Your task to perform on an android device: Show me productivity apps on the Play Store Image 0: 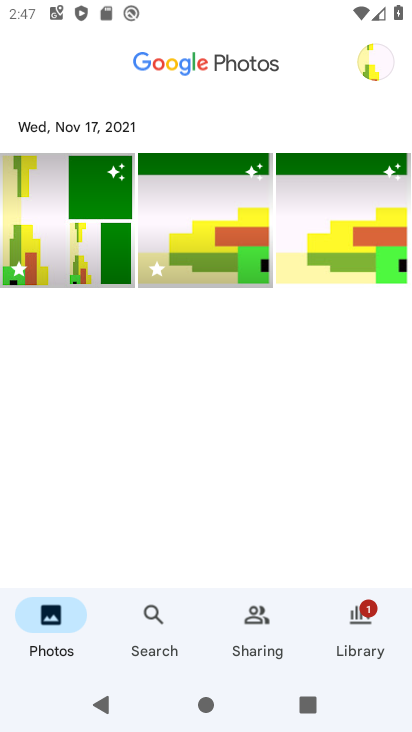
Step 0: press home button
Your task to perform on an android device: Show me productivity apps on the Play Store Image 1: 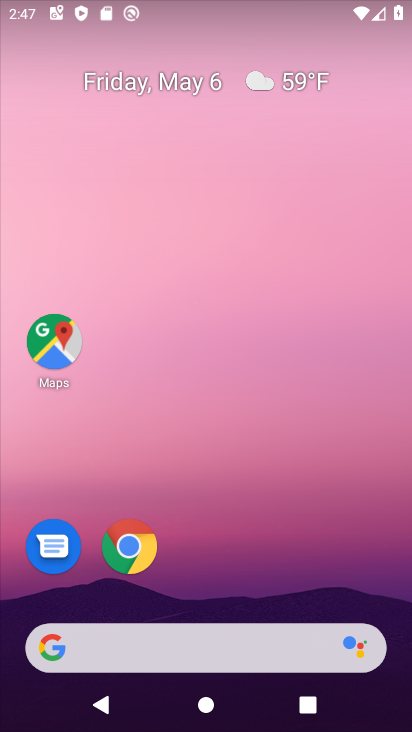
Step 1: drag from (243, 598) to (211, 229)
Your task to perform on an android device: Show me productivity apps on the Play Store Image 2: 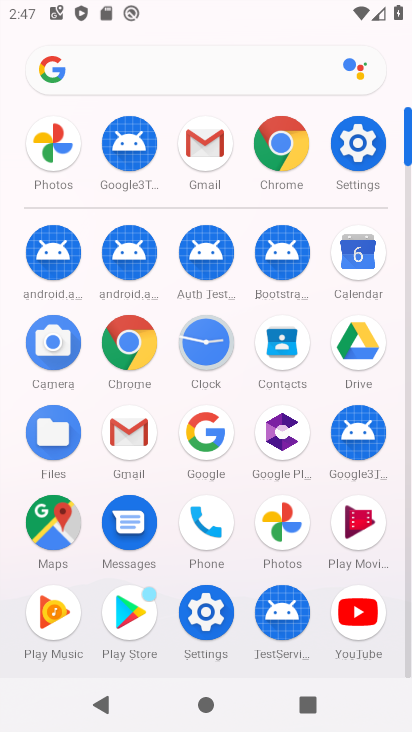
Step 2: click (124, 617)
Your task to perform on an android device: Show me productivity apps on the Play Store Image 3: 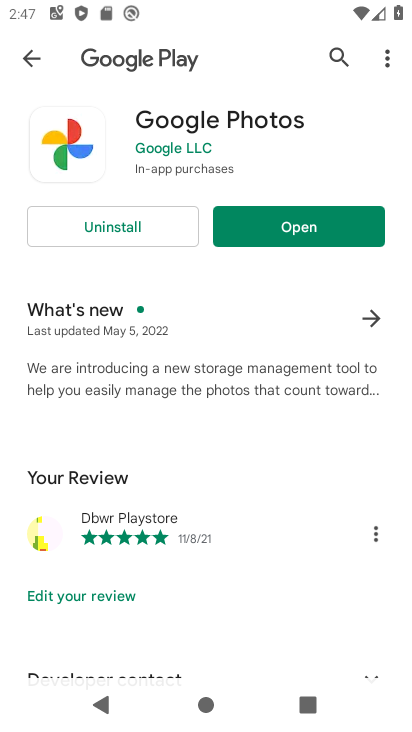
Step 3: click (38, 49)
Your task to perform on an android device: Show me productivity apps on the Play Store Image 4: 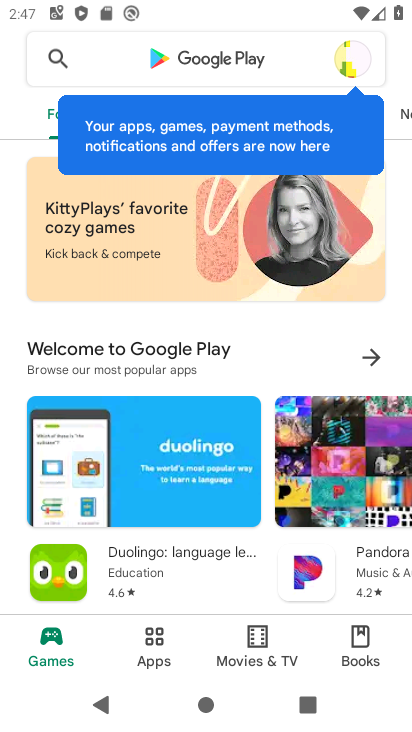
Step 4: click (262, 68)
Your task to perform on an android device: Show me productivity apps on the Play Store Image 5: 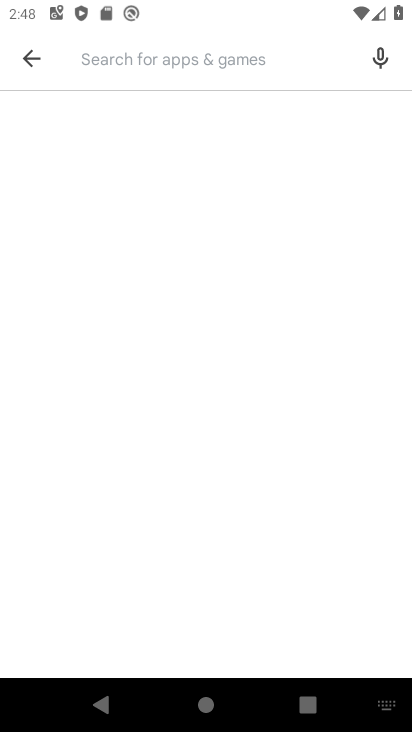
Step 5: type "productivity apps"
Your task to perform on an android device: Show me productivity apps on the Play Store Image 6: 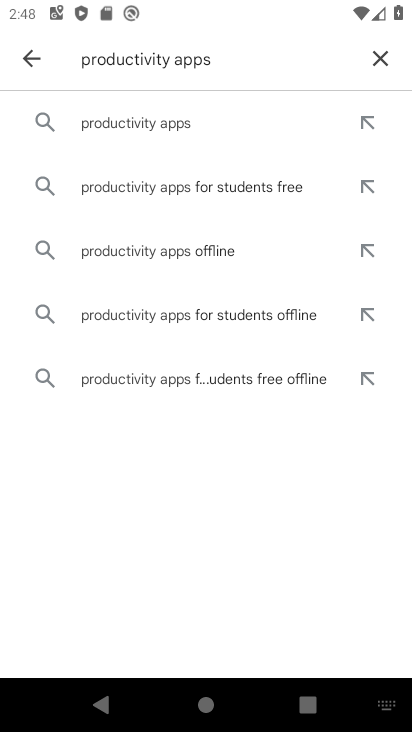
Step 6: click (216, 128)
Your task to perform on an android device: Show me productivity apps on the Play Store Image 7: 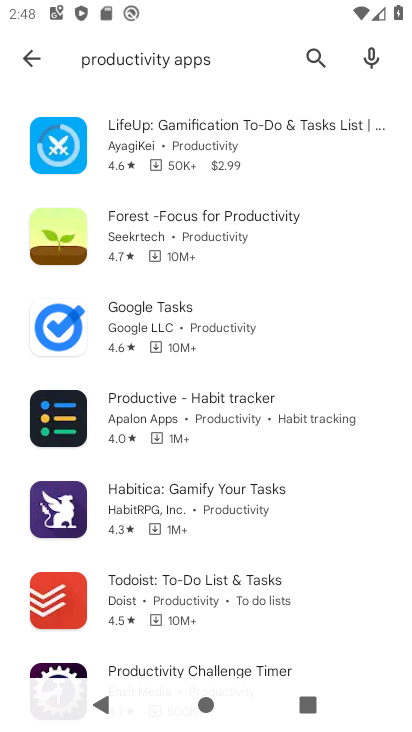
Step 7: task complete